Your task to perform on an android device: Open Google Maps and go to "Timeline" Image 0: 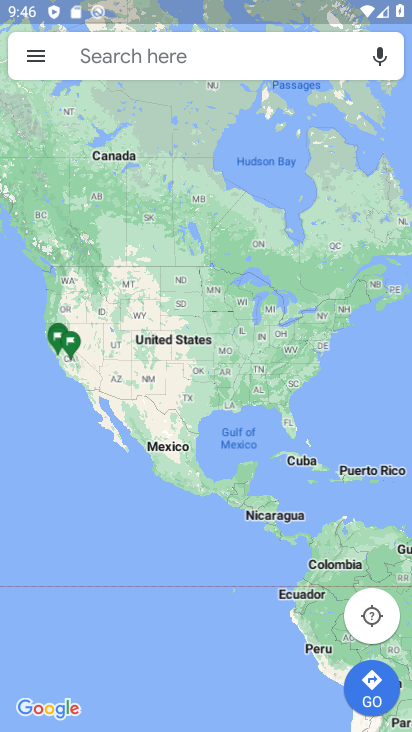
Step 0: press home button
Your task to perform on an android device: Open Google Maps and go to "Timeline" Image 1: 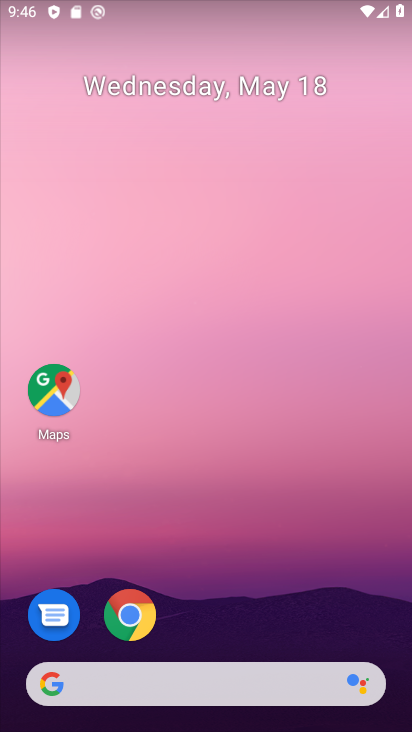
Step 1: click (51, 403)
Your task to perform on an android device: Open Google Maps and go to "Timeline" Image 2: 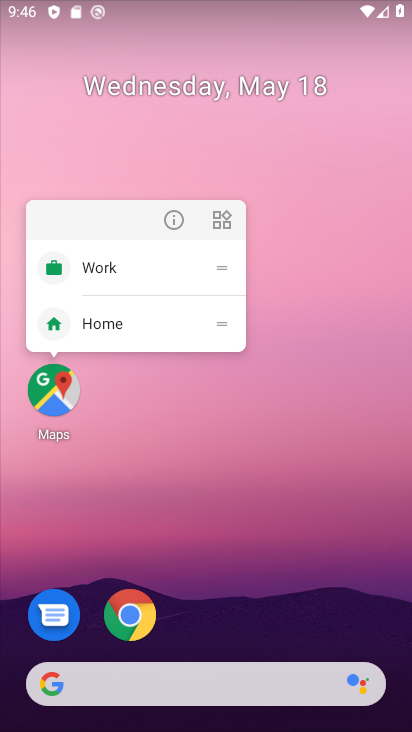
Step 2: click (51, 402)
Your task to perform on an android device: Open Google Maps and go to "Timeline" Image 3: 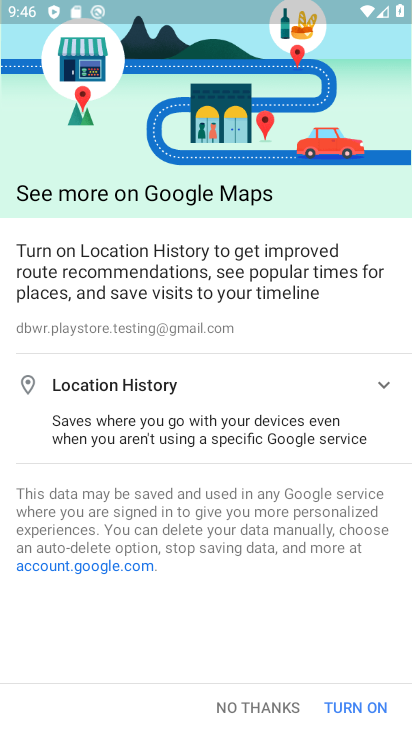
Step 3: click (352, 697)
Your task to perform on an android device: Open Google Maps and go to "Timeline" Image 4: 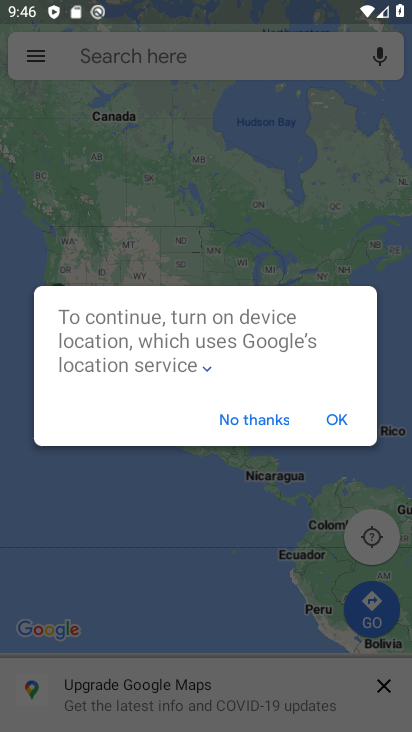
Step 4: click (334, 414)
Your task to perform on an android device: Open Google Maps and go to "Timeline" Image 5: 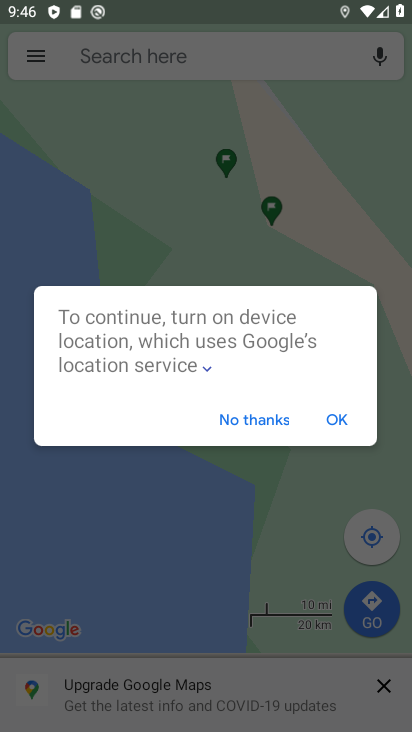
Step 5: click (337, 422)
Your task to perform on an android device: Open Google Maps and go to "Timeline" Image 6: 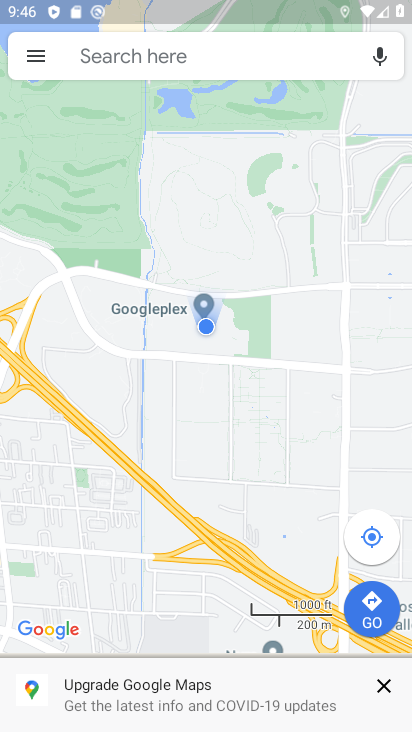
Step 6: click (38, 55)
Your task to perform on an android device: Open Google Maps and go to "Timeline" Image 7: 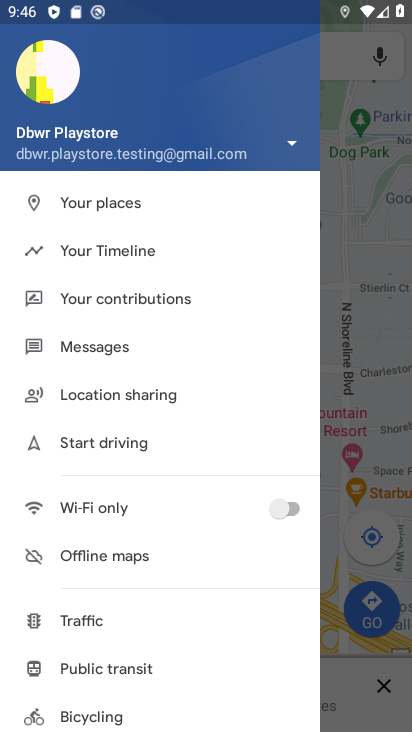
Step 7: click (114, 261)
Your task to perform on an android device: Open Google Maps and go to "Timeline" Image 8: 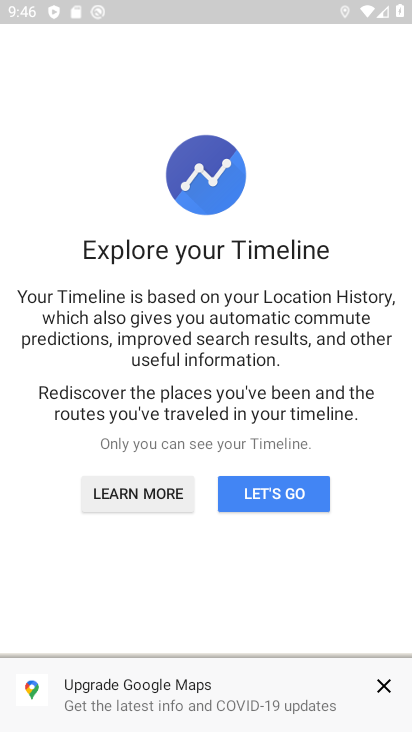
Step 8: click (273, 490)
Your task to perform on an android device: Open Google Maps and go to "Timeline" Image 9: 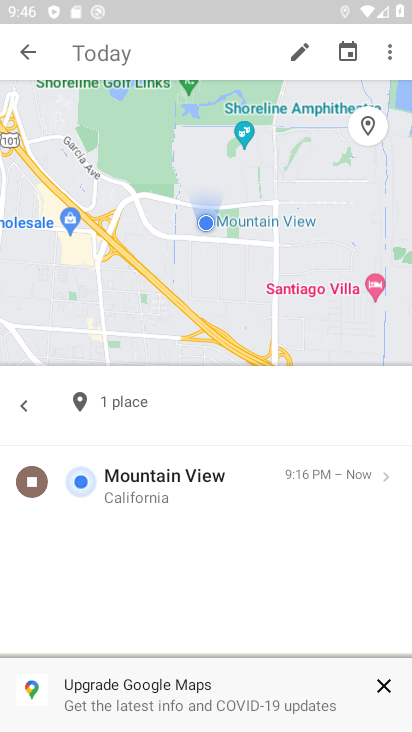
Step 9: task complete